Your task to perform on an android device: Clear all items from cart on newegg.com. Add razer kraken to the cart on newegg.com Image 0: 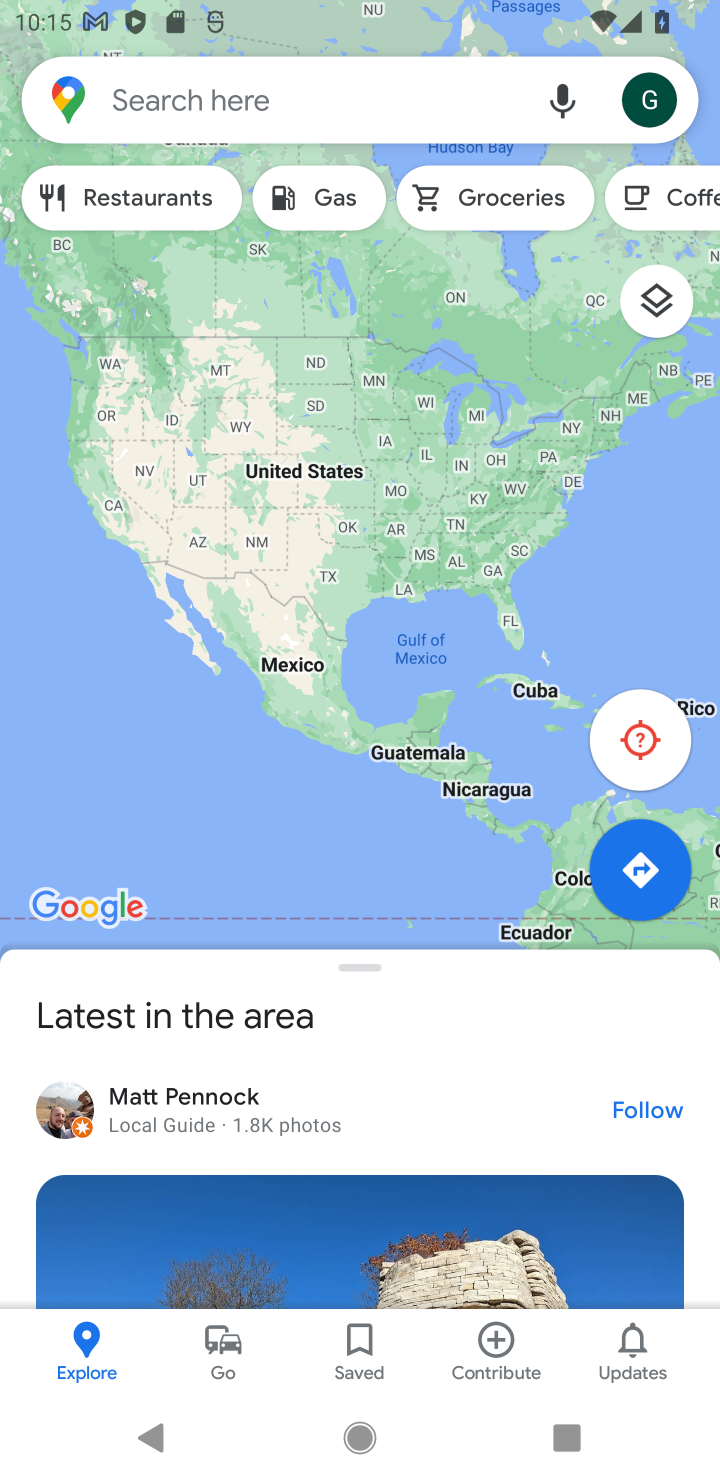
Step 0: press home button
Your task to perform on an android device: Clear all items from cart on newegg.com. Add razer kraken to the cart on newegg.com Image 1: 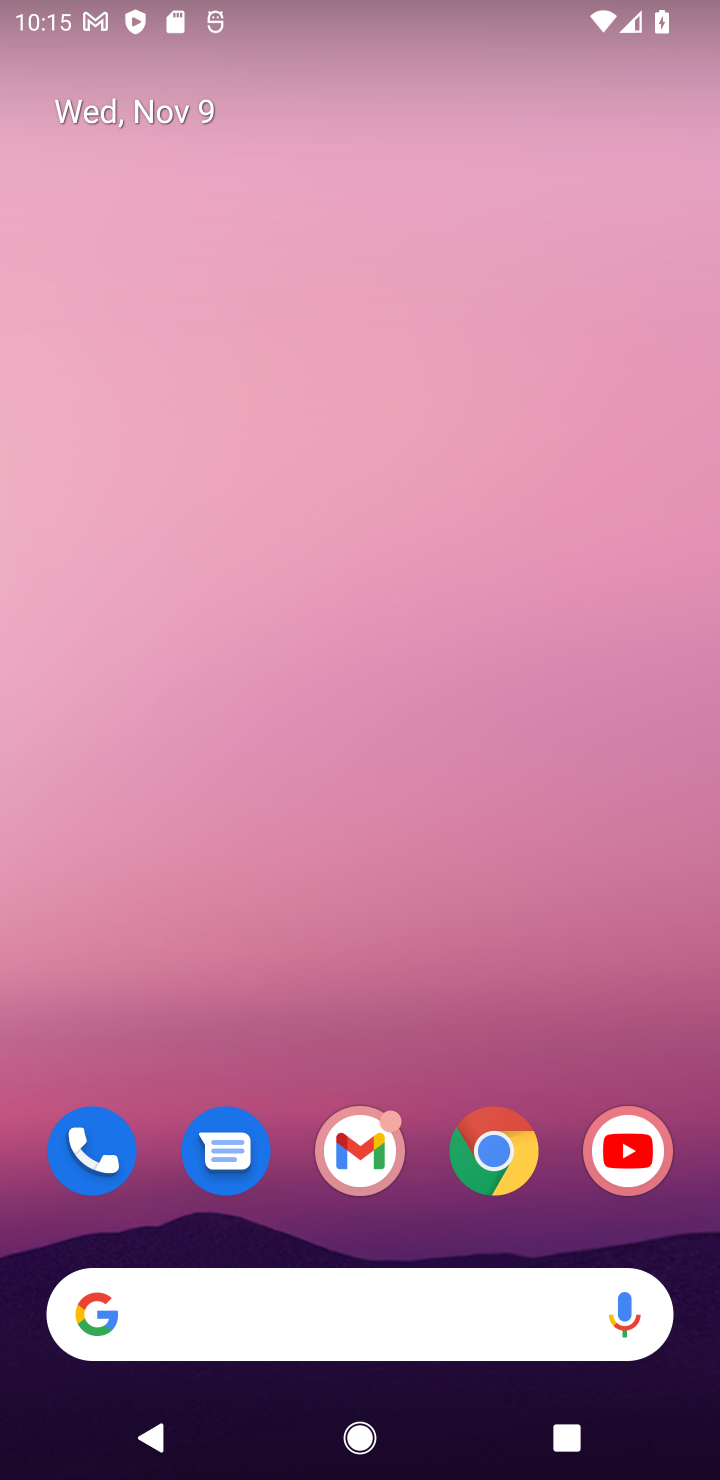
Step 1: click (482, 1144)
Your task to perform on an android device: Clear all items from cart on newegg.com. Add razer kraken to the cart on newegg.com Image 2: 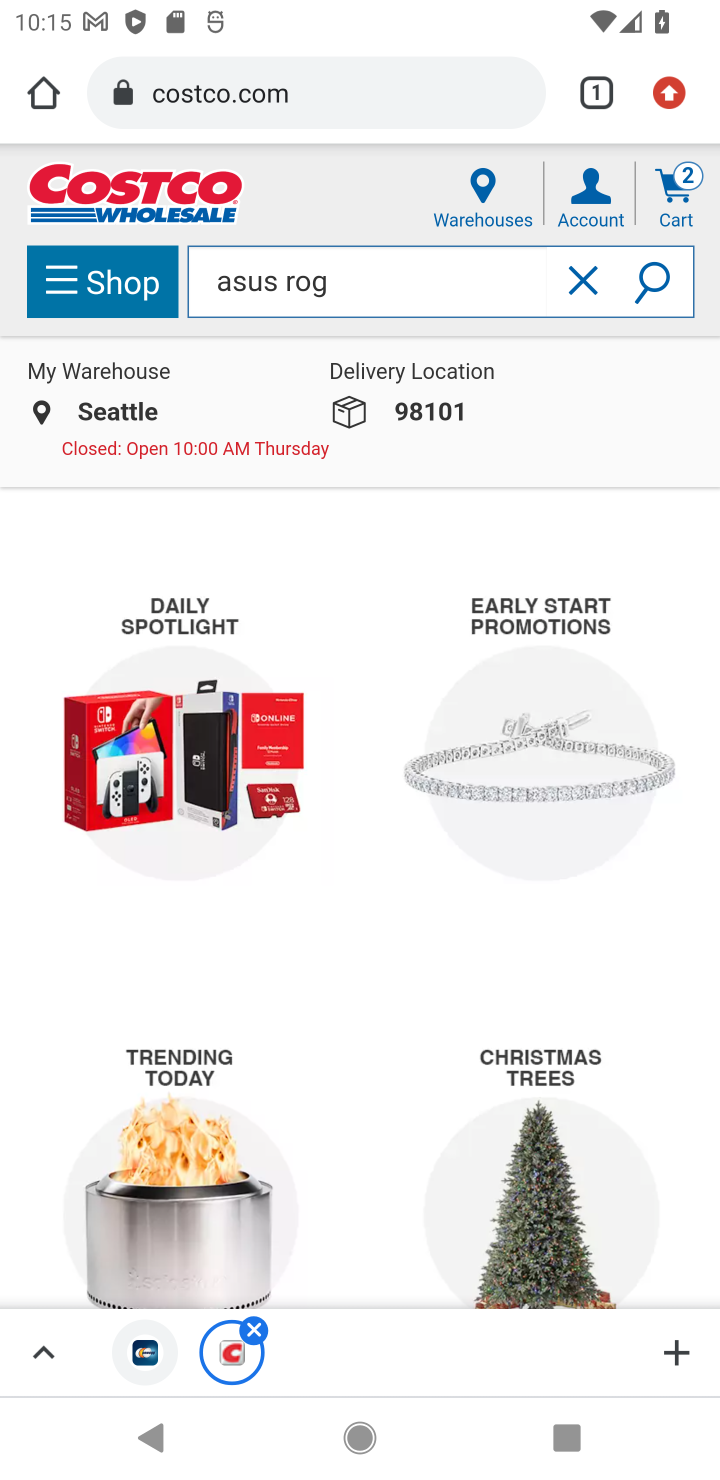
Step 2: click (46, 90)
Your task to perform on an android device: Clear all items from cart on newegg.com. Add razer kraken to the cart on newegg.com Image 3: 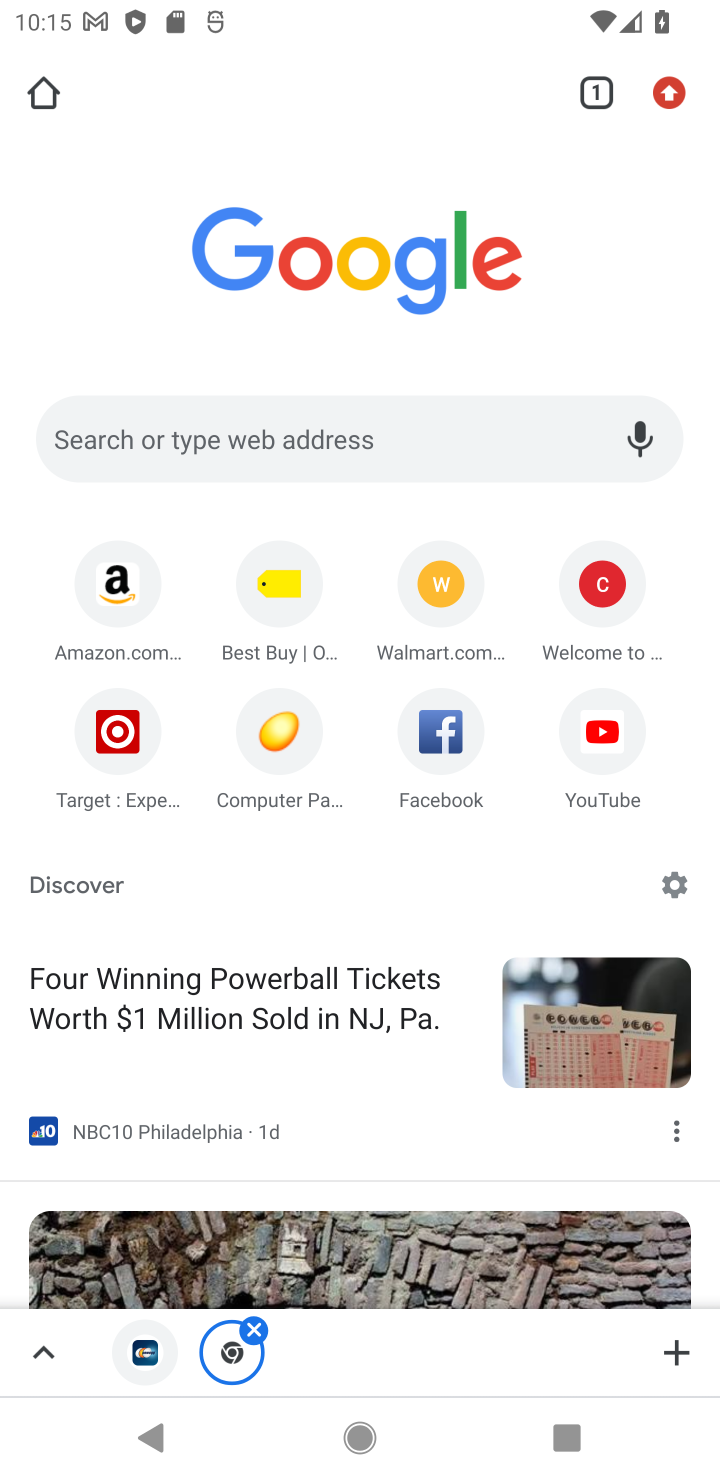
Step 3: click (206, 428)
Your task to perform on an android device: Clear all items from cart on newegg.com. Add razer kraken to the cart on newegg.com Image 4: 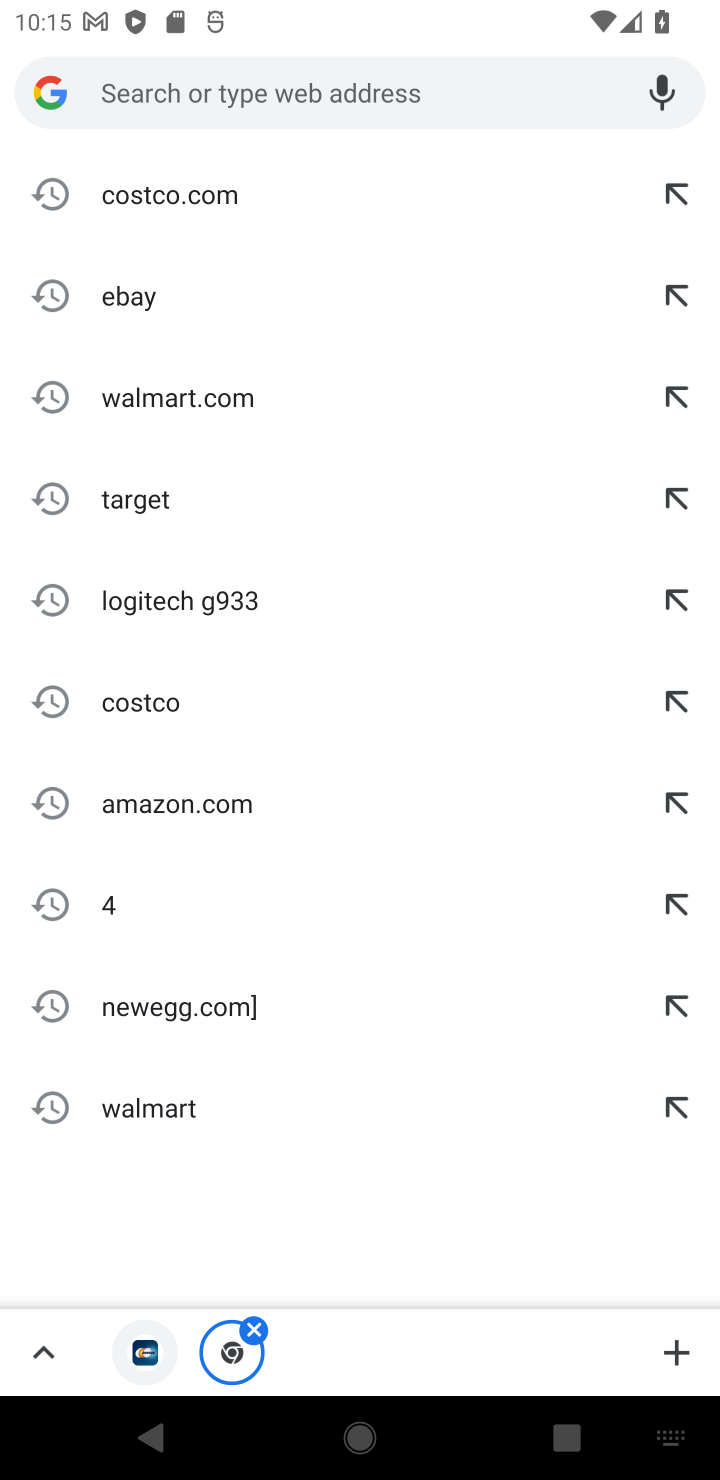
Step 4: type "newegg.com"
Your task to perform on an android device: Clear all items from cart on newegg.com. Add razer kraken to the cart on newegg.com Image 5: 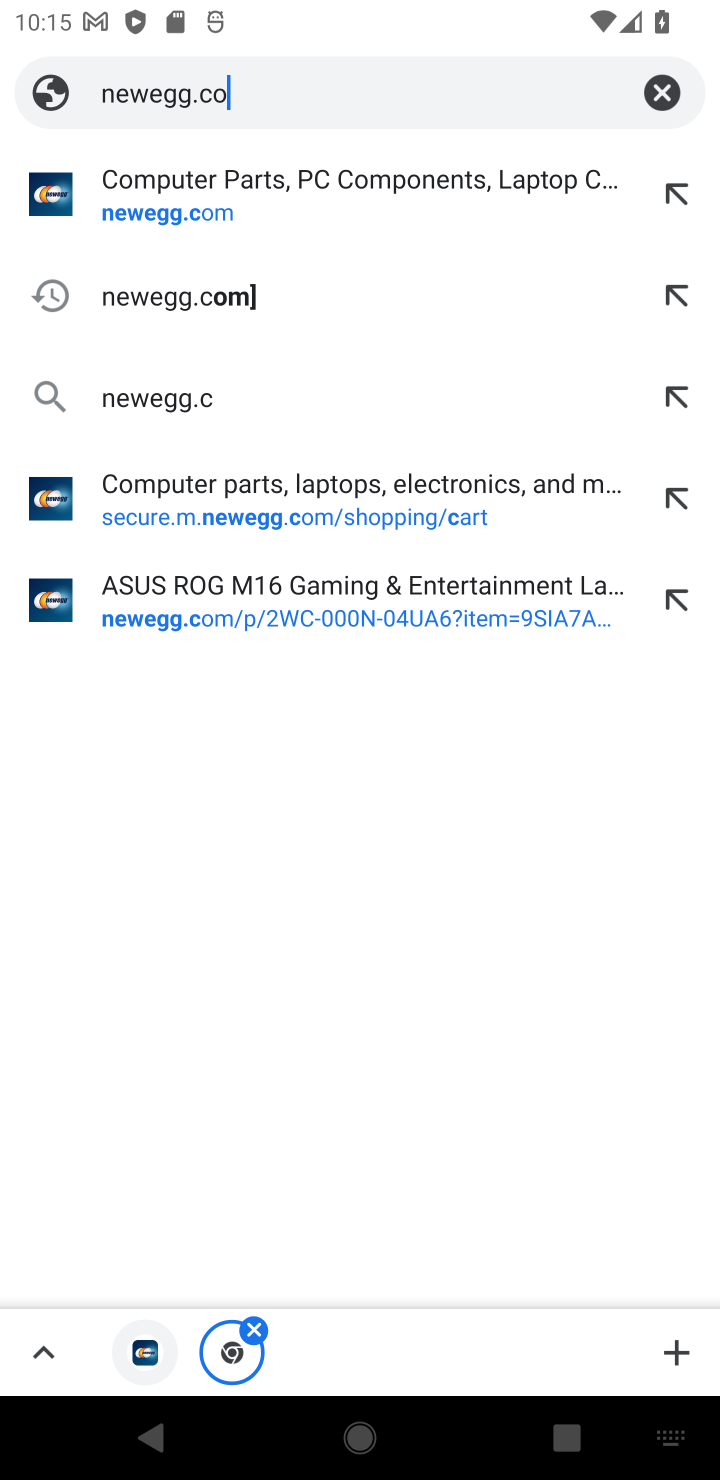
Step 5: press enter
Your task to perform on an android device: Clear all items from cart on newegg.com. Add razer kraken to the cart on newegg.com Image 6: 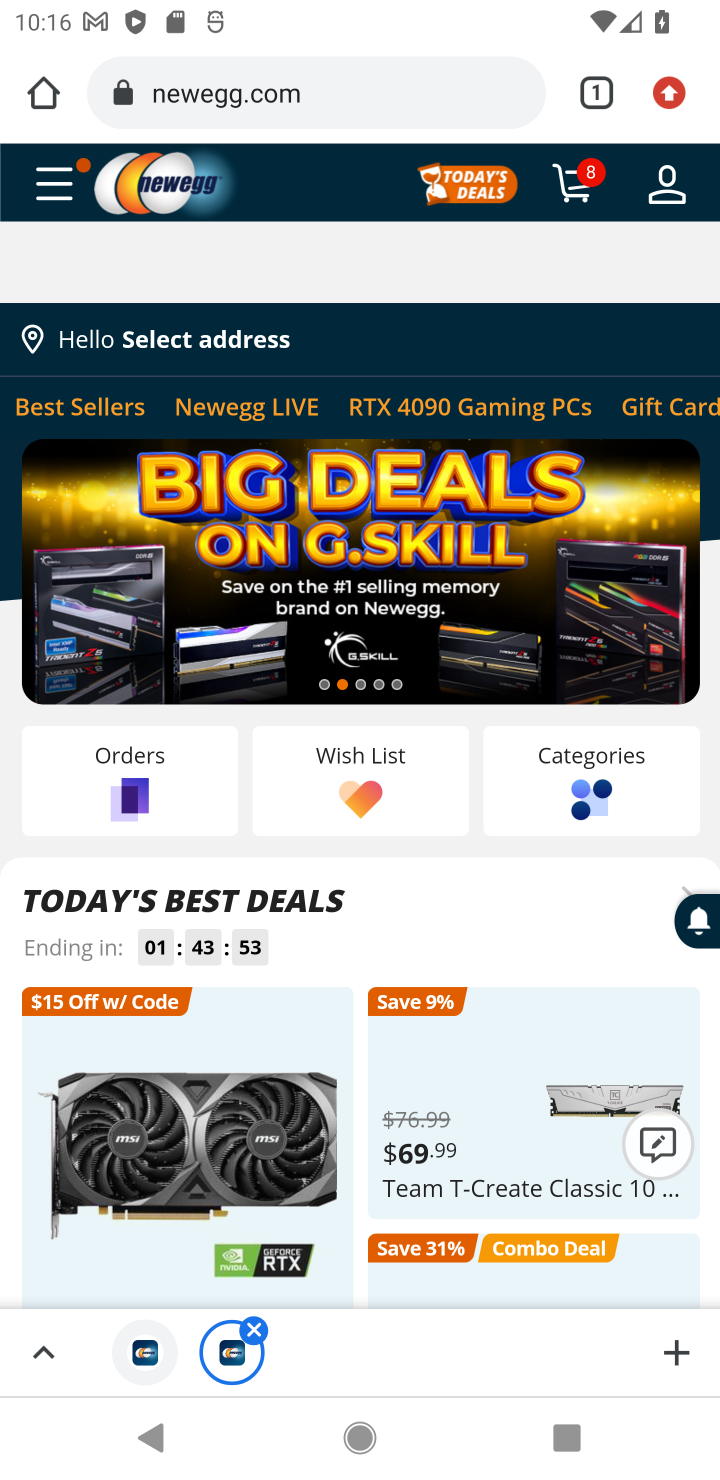
Step 6: click (572, 204)
Your task to perform on an android device: Clear all items from cart on newegg.com. Add razer kraken to the cart on newegg.com Image 7: 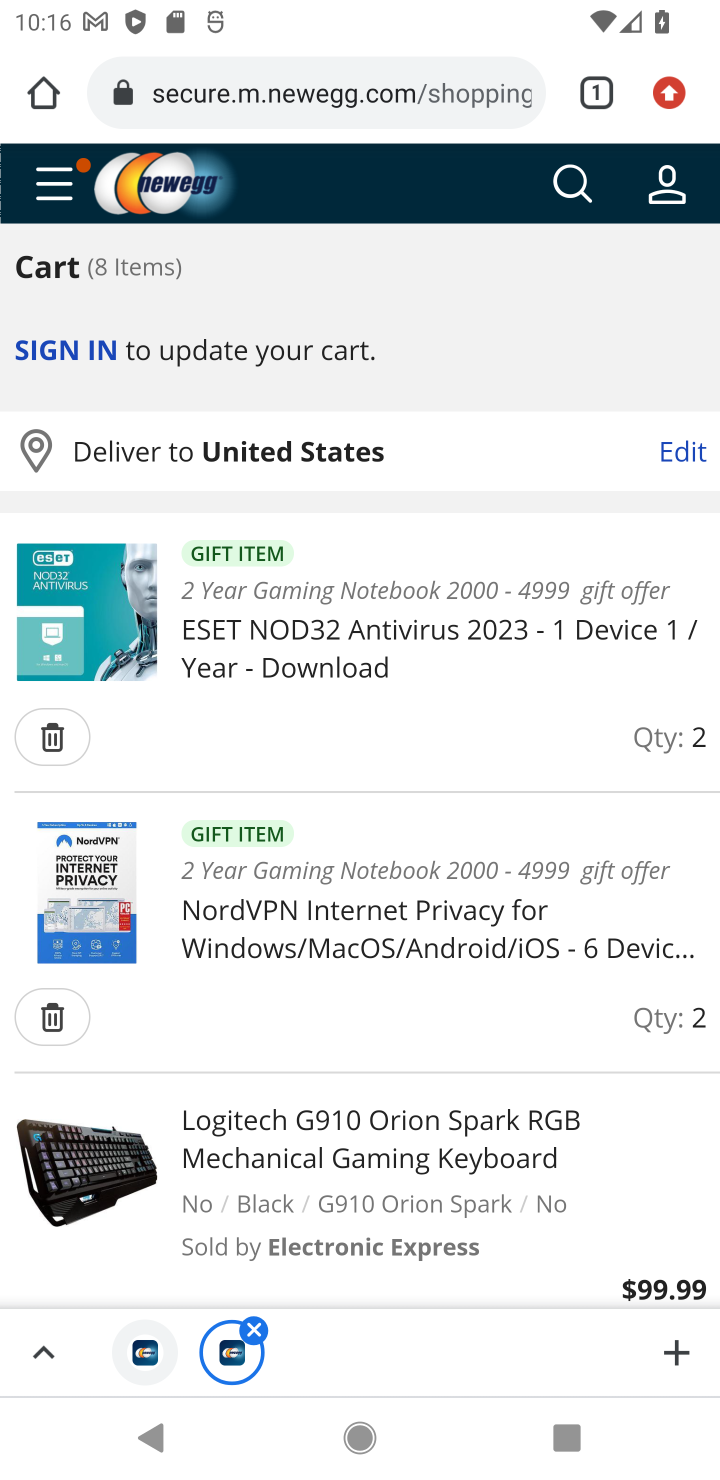
Step 7: drag from (507, 779) to (505, 319)
Your task to perform on an android device: Clear all items from cart on newegg.com. Add razer kraken to the cart on newegg.com Image 8: 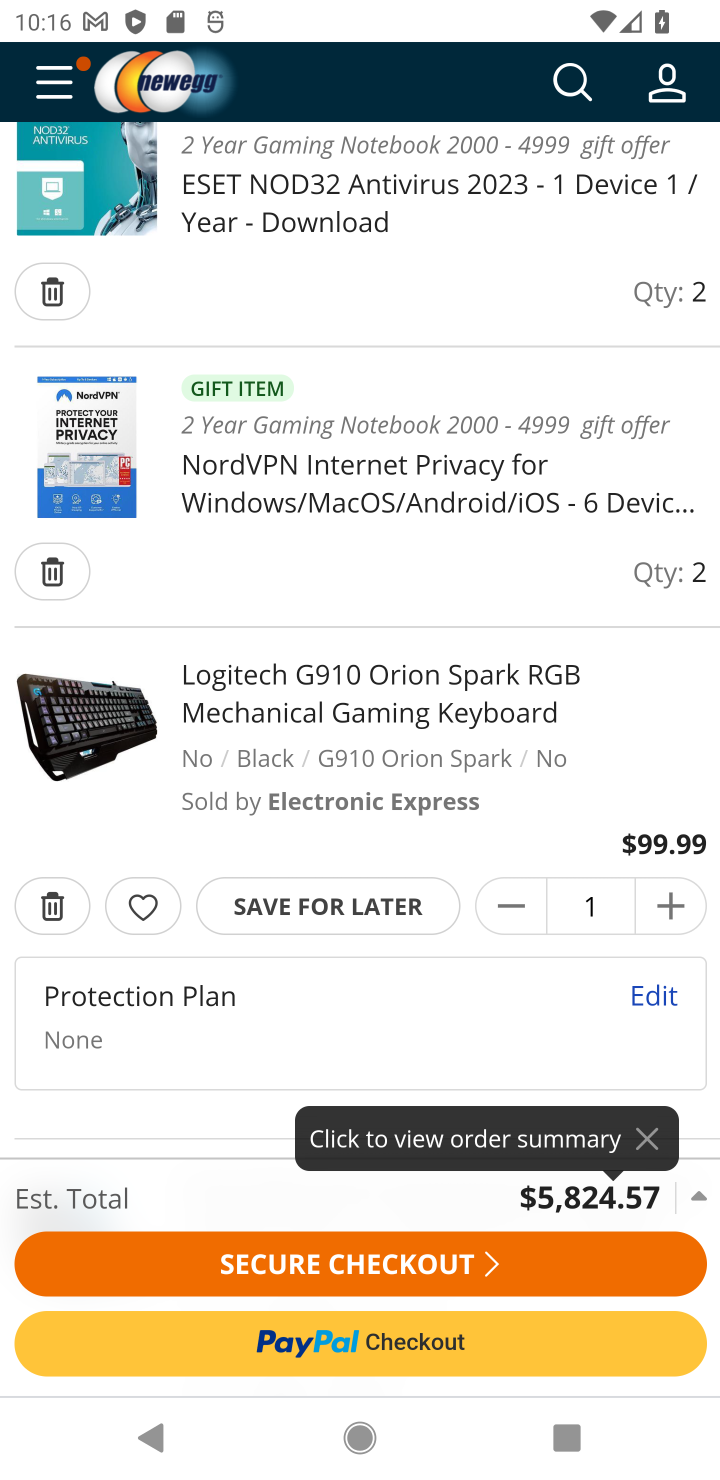
Step 8: click (61, 910)
Your task to perform on an android device: Clear all items from cart on newegg.com. Add razer kraken to the cart on newegg.com Image 9: 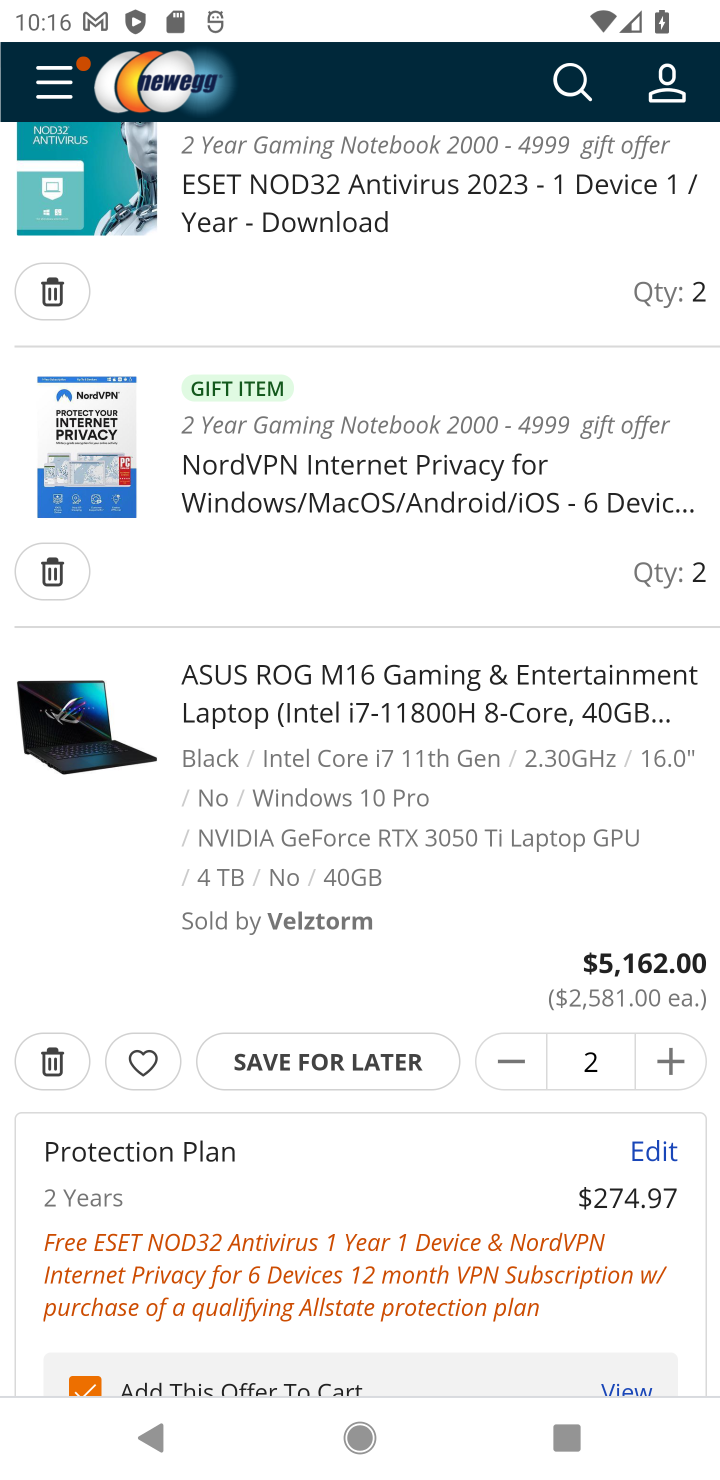
Step 9: click (53, 580)
Your task to perform on an android device: Clear all items from cart on newegg.com. Add razer kraken to the cart on newegg.com Image 10: 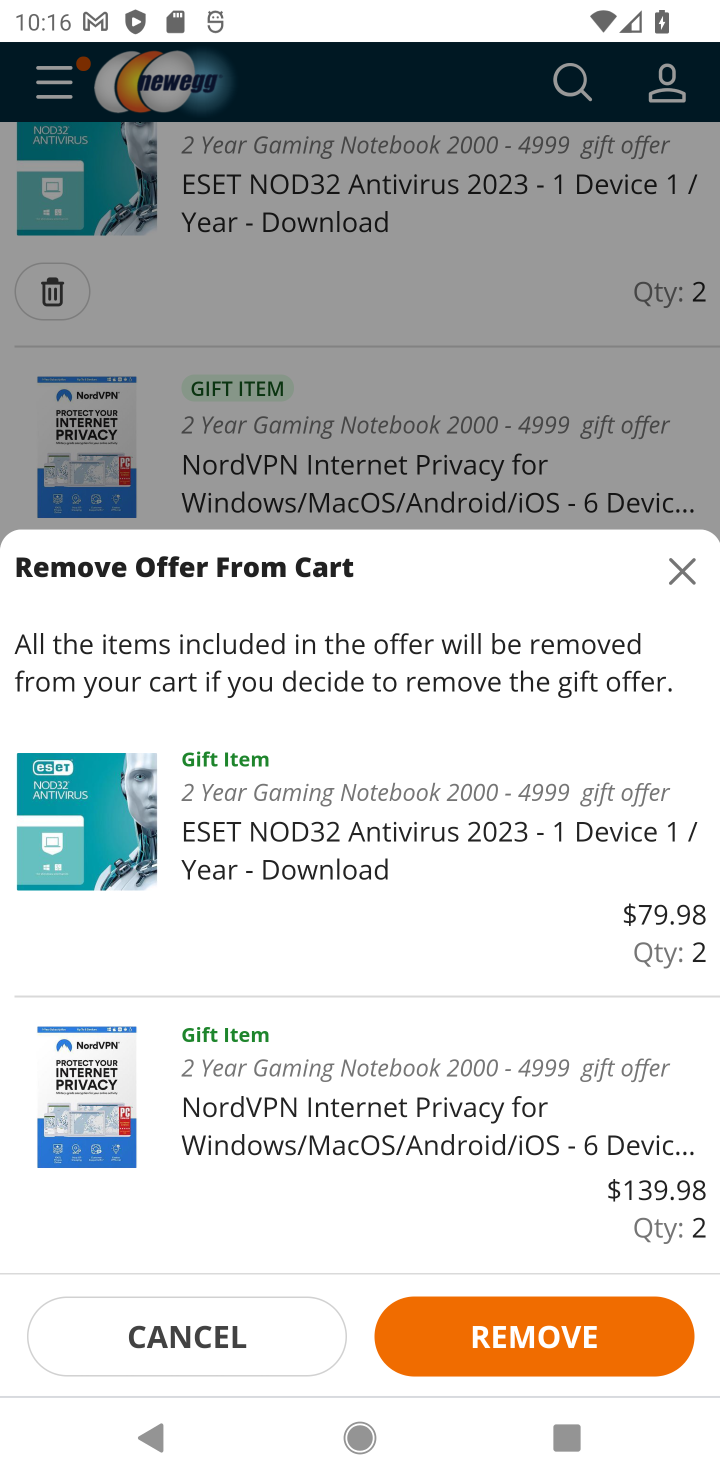
Step 10: click (525, 1336)
Your task to perform on an android device: Clear all items from cart on newegg.com. Add razer kraken to the cart on newegg.com Image 11: 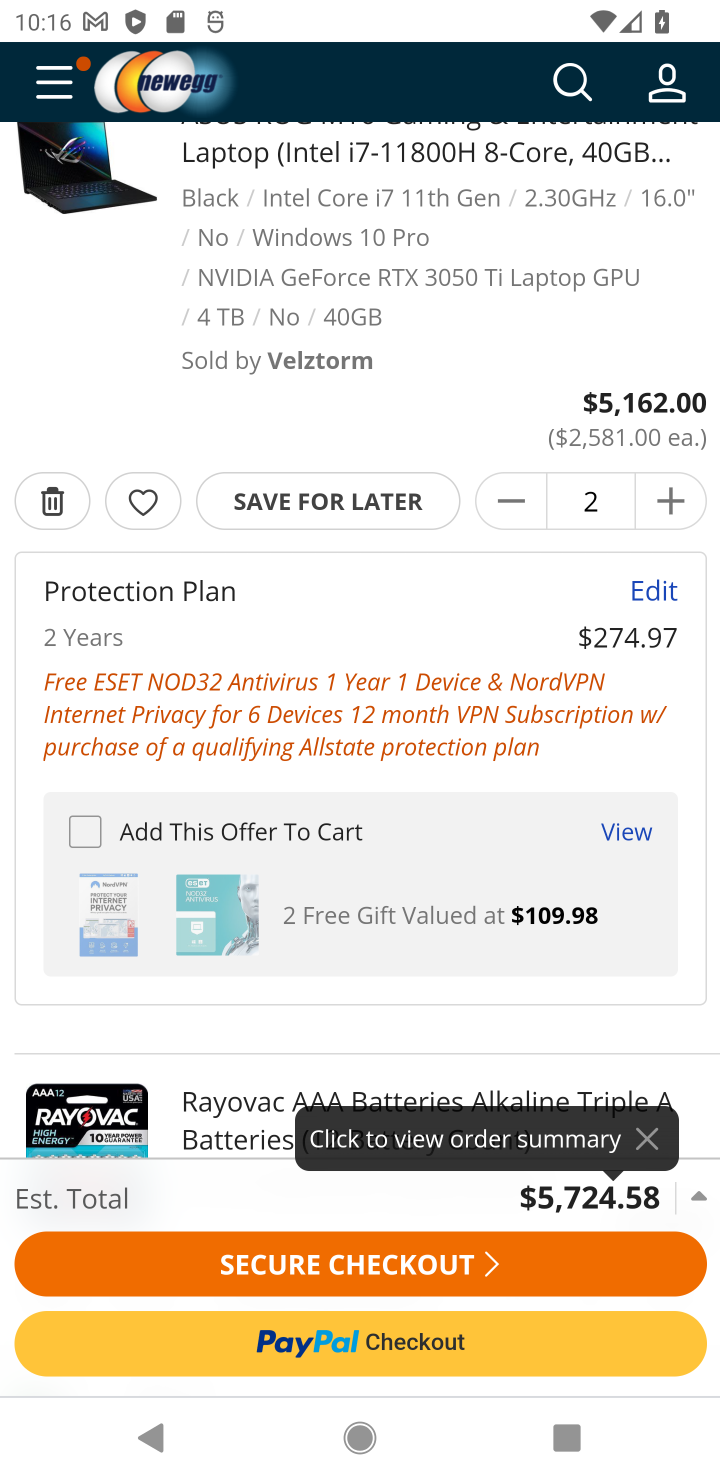
Step 11: click (46, 502)
Your task to perform on an android device: Clear all items from cart on newegg.com. Add razer kraken to the cart on newegg.com Image 12: 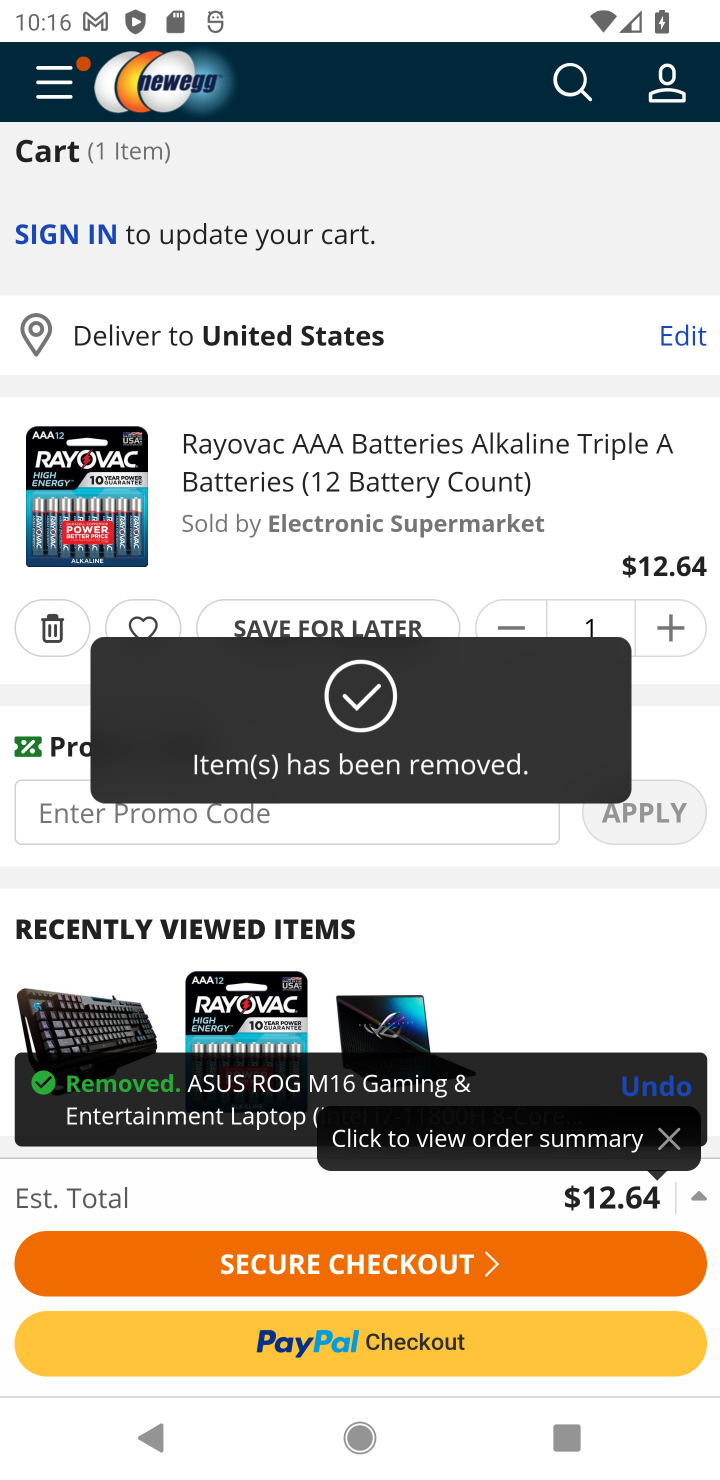
Step 12: click (56, 620)
Your task to perform on an android device: Clear all items from cart on newegg.com. Add razer kraken to the cart on newegg.com Image 13: 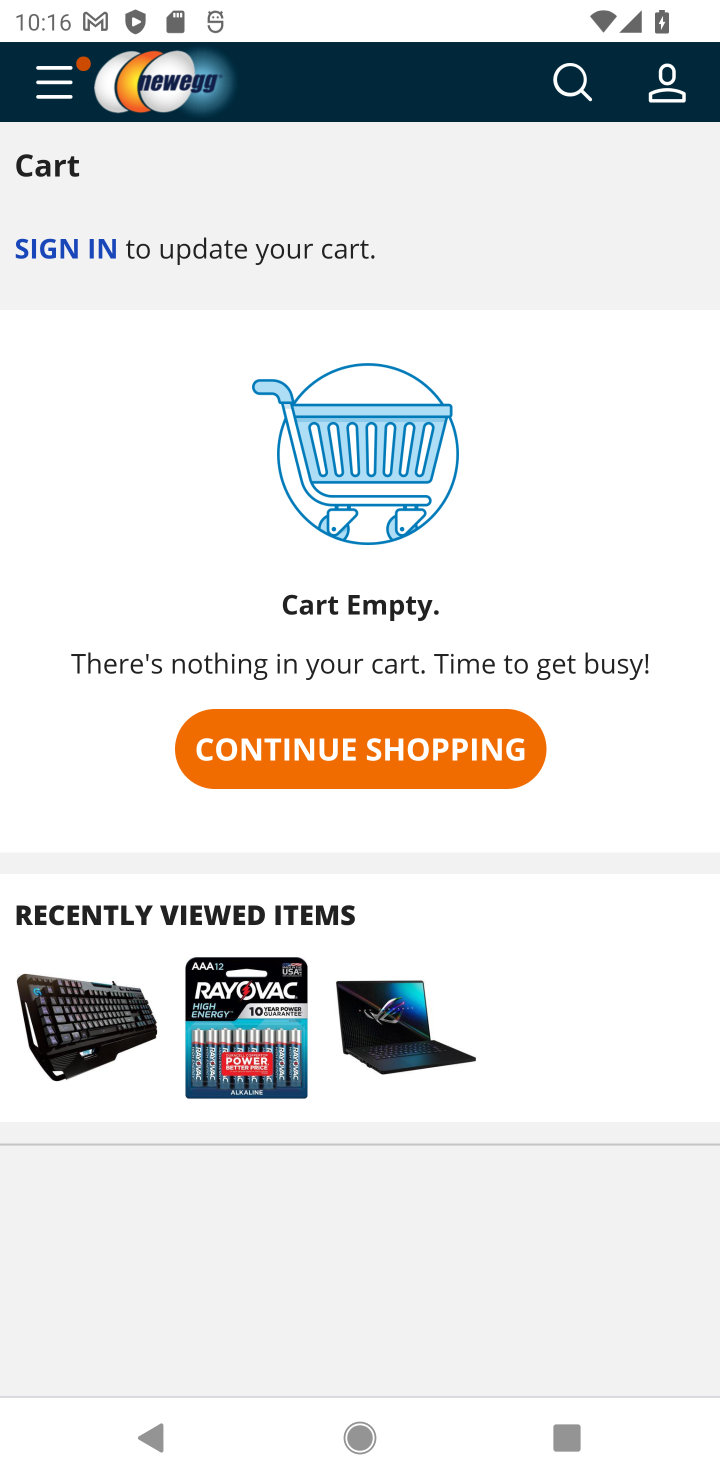
Step 13: click (564, 87)
Your task to perform on an android device: Clear all items from cart on newegg.com. Add razer kraken to the cart on newegg.com Image 14: 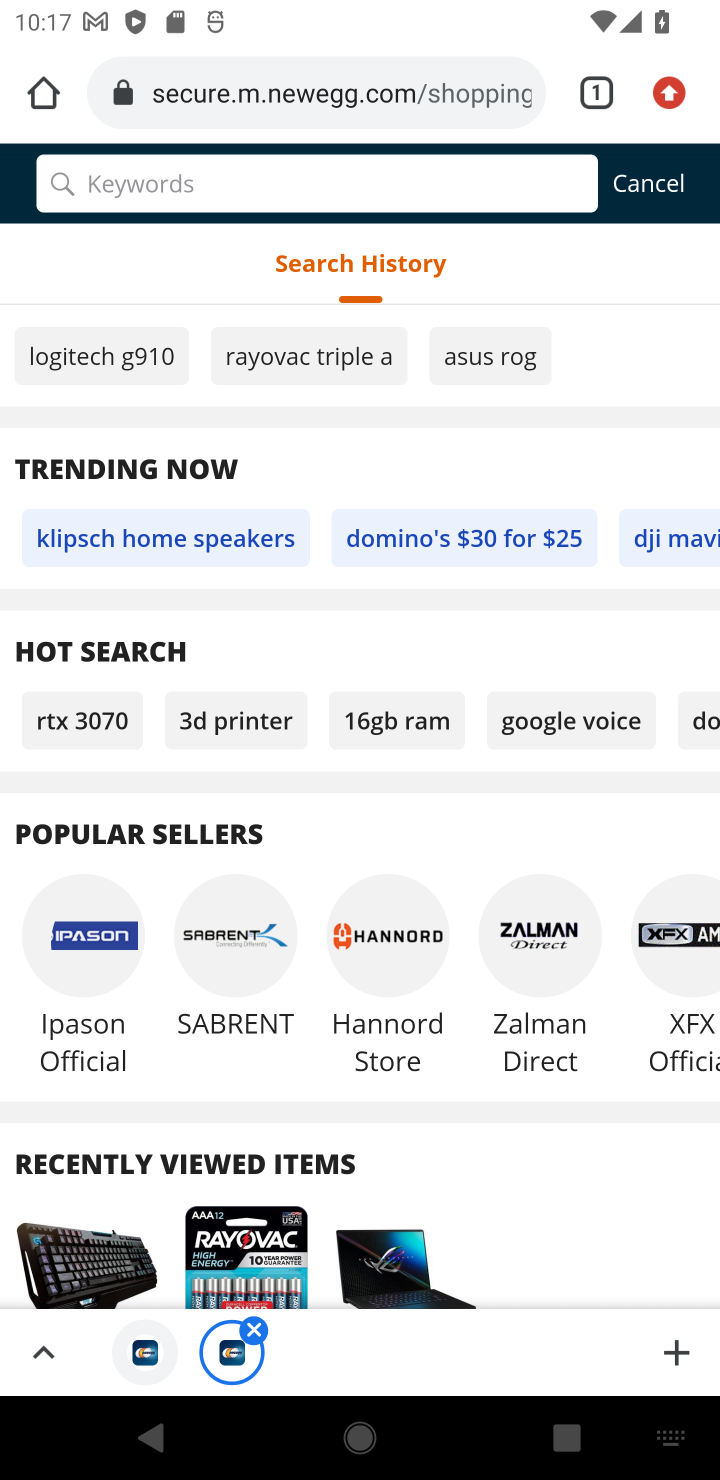
Step 14: type "razer kraken"
Your task to perform on an android device: Clear all items from cart on newegg.com. Add razer kraken to the cart on newegg.com Image 15: 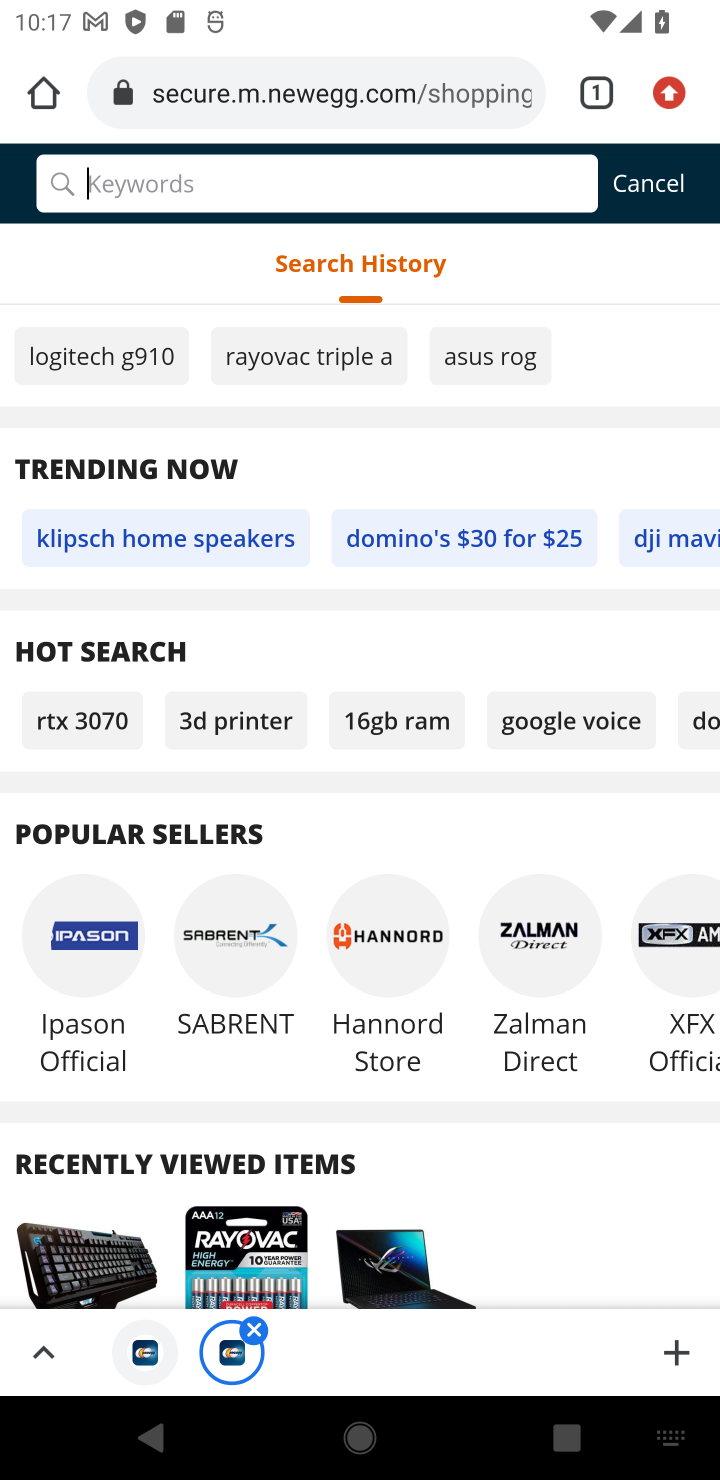
Step 15: press enter
Your task to perform on an android device: Clear all items from cart on newegg.com. Add razer kraken to the cart on newegg.com Image 16: 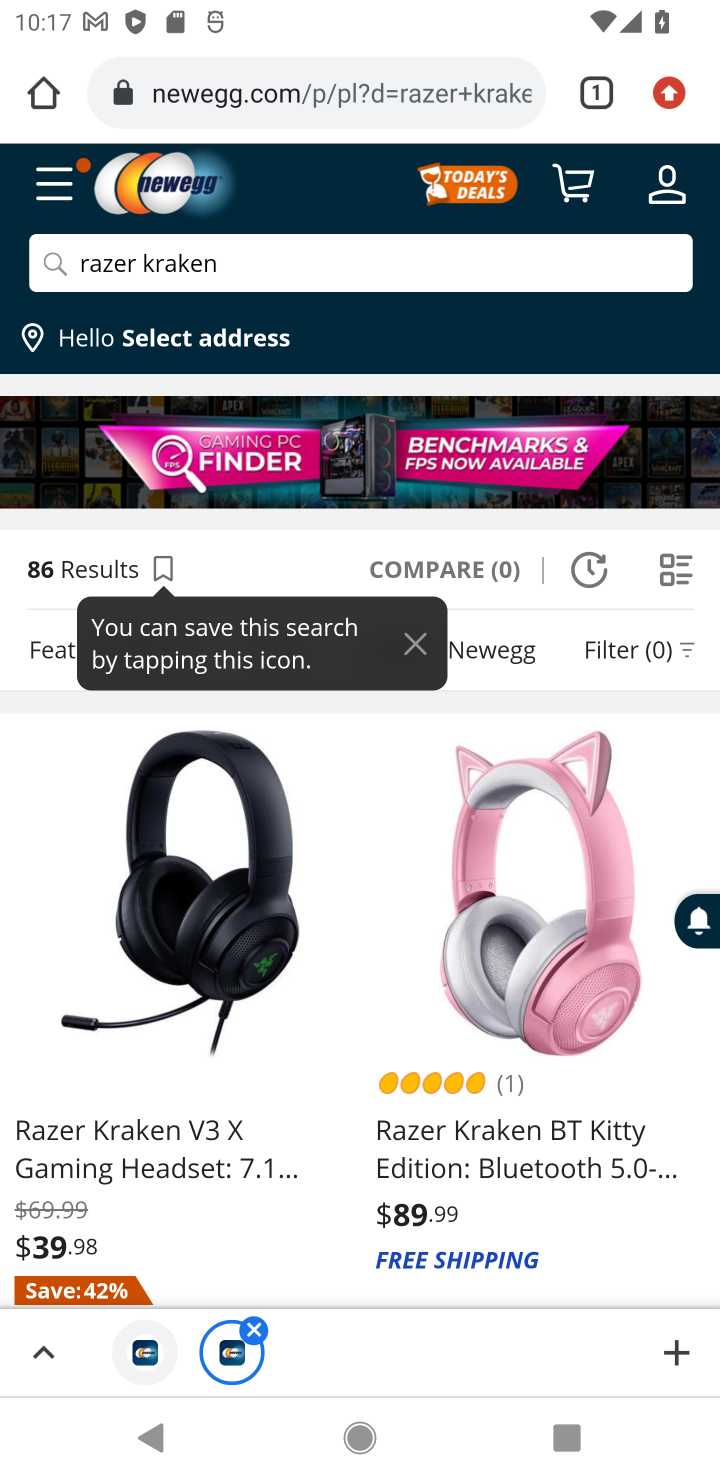
Step 16: click (199, 920)
Your task to perform on an android device: Clear all items from cart on newegg.com. Add razer kraken to the cart on newegg.com Image 17: 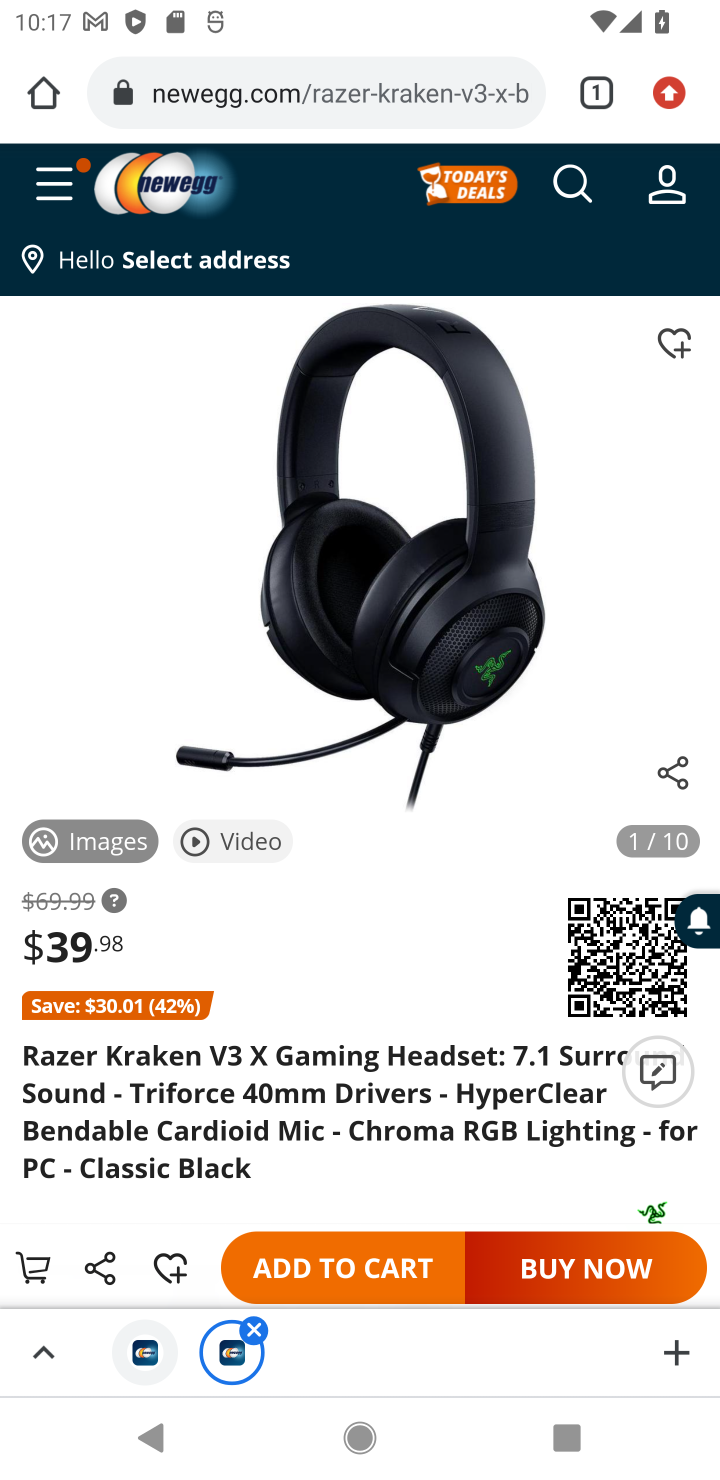
Step 17: click (321, 1266)
Your task to perform on an android device: Clear all items from cart on newegg.com. Add razer kraken to the cart on newegg.com Image 18: 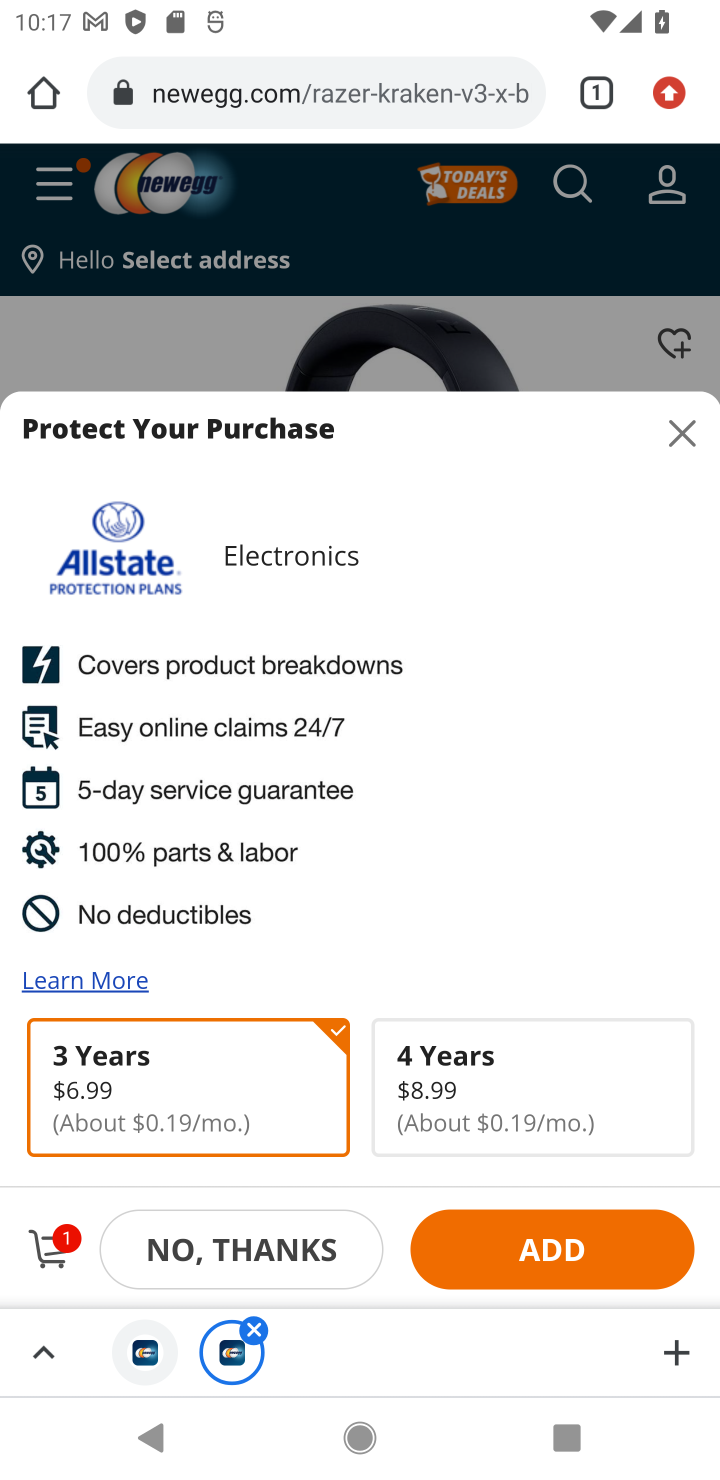
Step 18: task complete